Your task to perform on an android device: all mails in gmail Image 0: 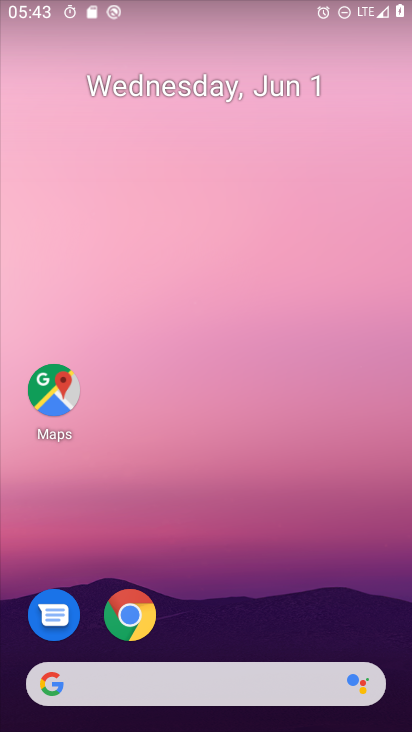
Step 0: drag from (301, 651) to (319, 26)
Your task to perform on an android device: all mails in gmail Image 1: 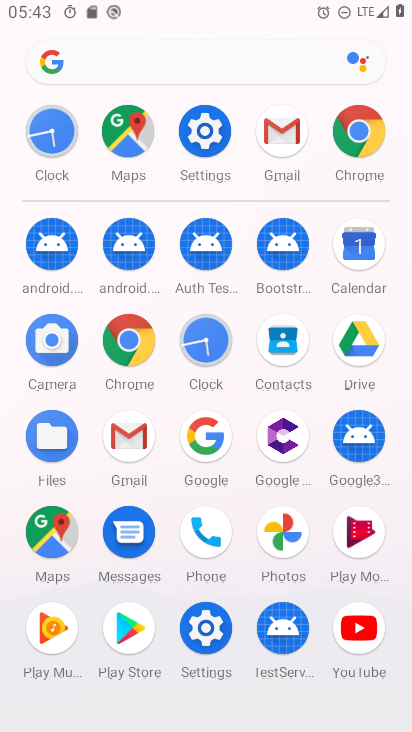
Step 1: click (135, 441)
Your task to perform on an android device: all mails in gmail Image 2: 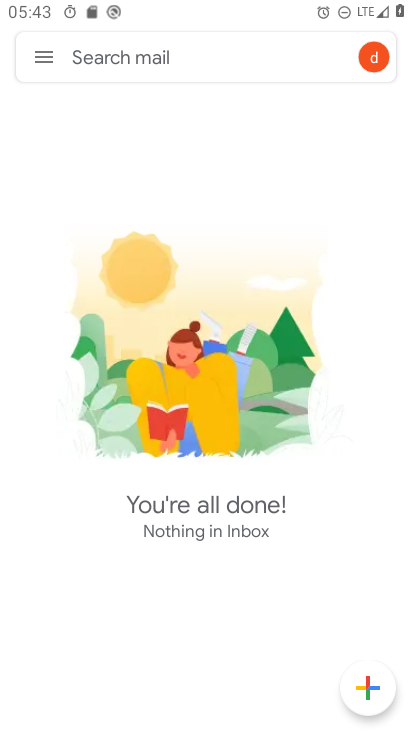
Step 2: click (32, 53)
Your task to perform on an android device: all mails in gmail Image 3: 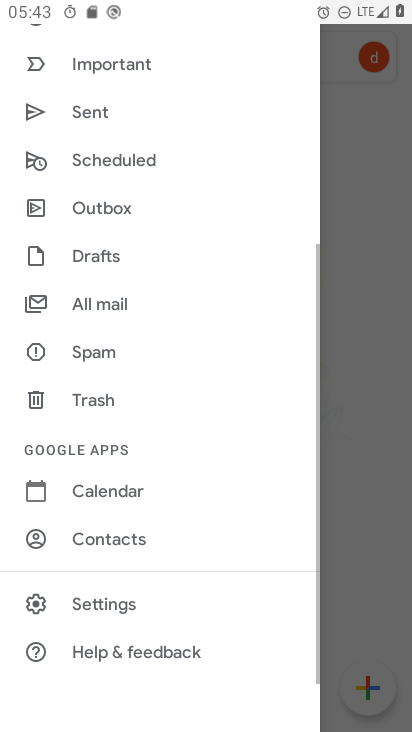
Step 3: click (135, 296)
Your task to perform on an android device: all mails in gmail Image 4: 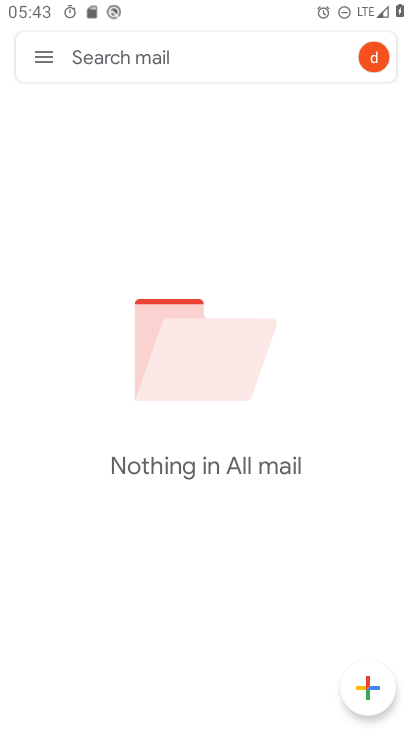
Step 4: task complete